Your task to perform on an android device: Open the calendar and show me this week's events Image 0: 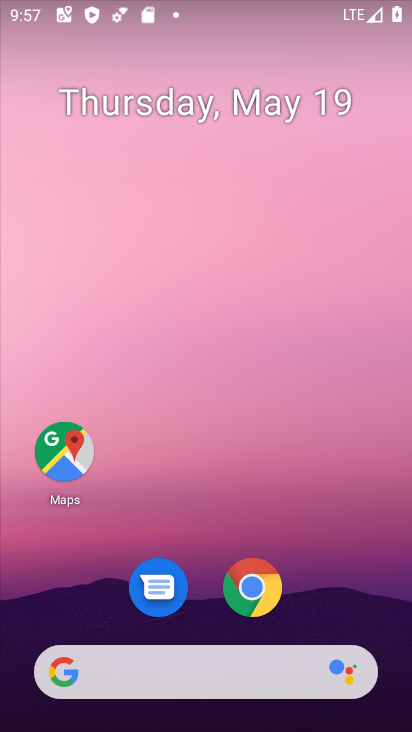
Step 0: click (176, 113)
Your task to perform on an android device: Open the calendar and show me this week's events Image 1: 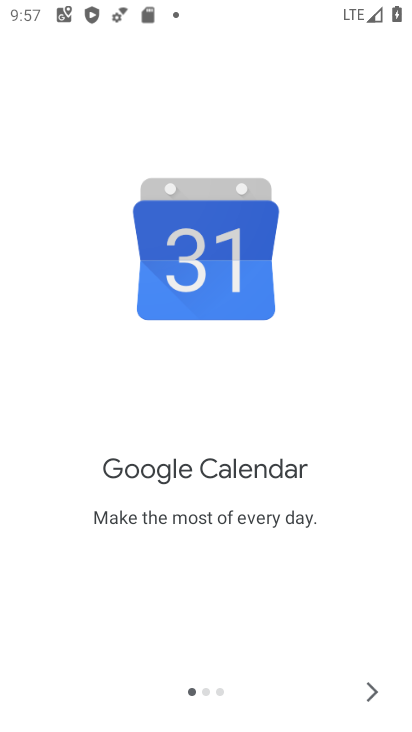
Step 1: click (362, 673)
Your task to perform on an android device: Open the calendar and show me this week's events Image 2: 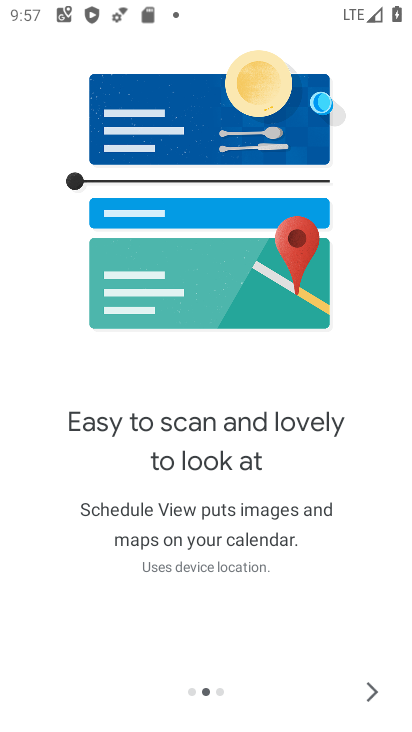
Step 2: click (362, 673)
Your task to perform on an android device: Open the calendar and show me this week's events Image 3: 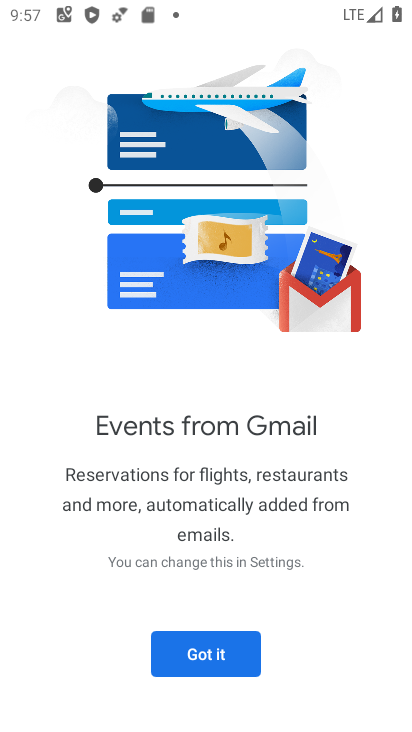
Step 3: click (226, 650)
Your task to perform on an android device: Open the calendar and show me this week's events Image 4: 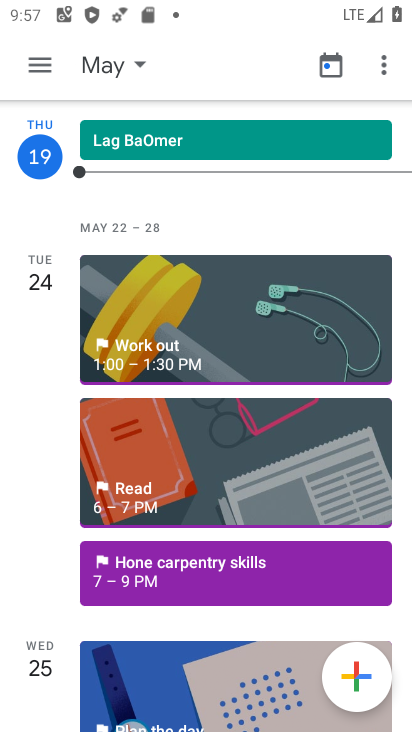
Step 4: click (97, 69)
Your task to perform on an android device: Open the calendar and show me this week's events Image 5: 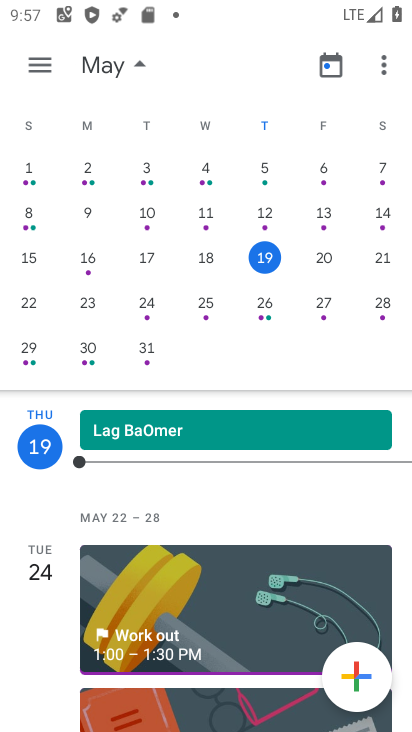
Step 5: click (48, 69)
Your task to perform on an android device: Open the calendar and show me this week's events Image 6: 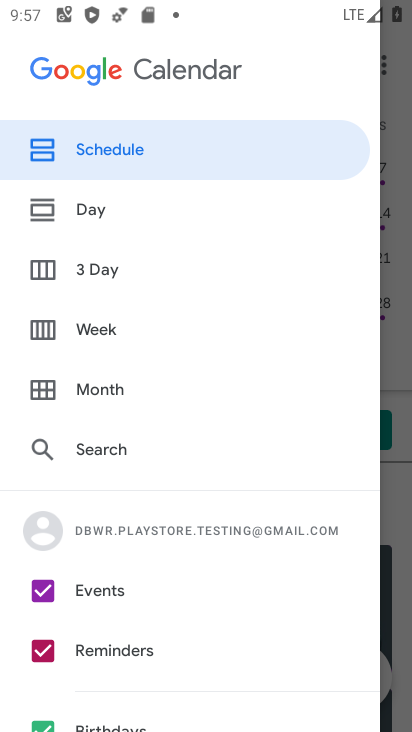
Step 6: click (42, 654)
Your task to perform on an android device: Open the calendar and show me this week's events Image 7: 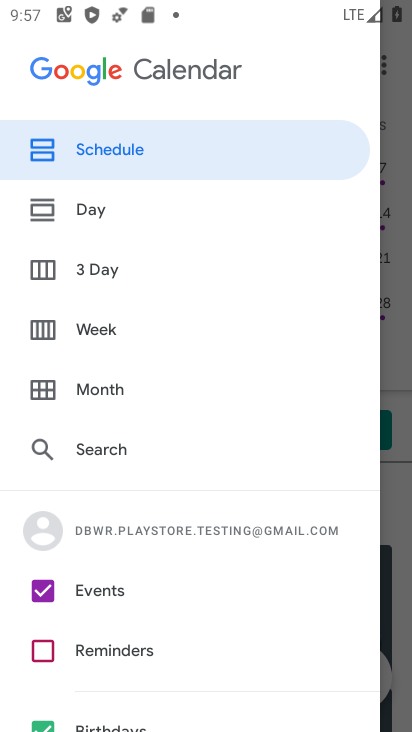
Step 7: click (38, 724)
Your task to perform on an android device: Open the calendar and show me this week's events Image 8: 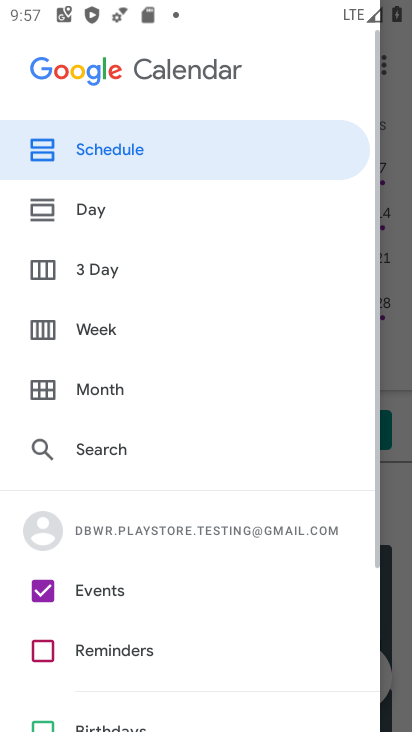
Step 8: drag from (86, 702) to (112, 511)
Your task to perform on an android device: Open the calendar and show me this week's events Image 9: 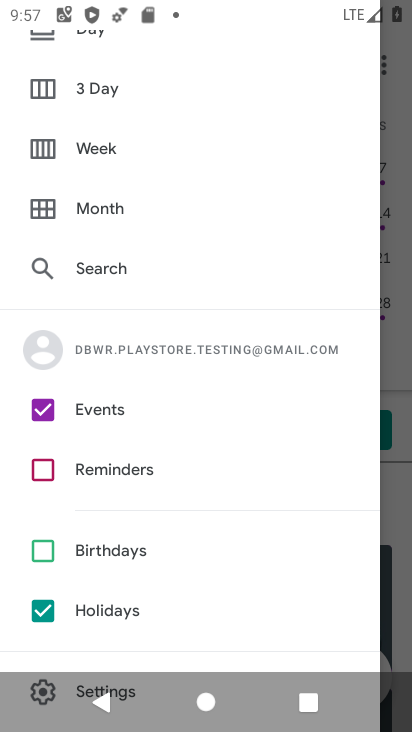
Step 9: click (43, 612)
Your task to perform on an android device: Open the calendar and show me this week's events Image 10: 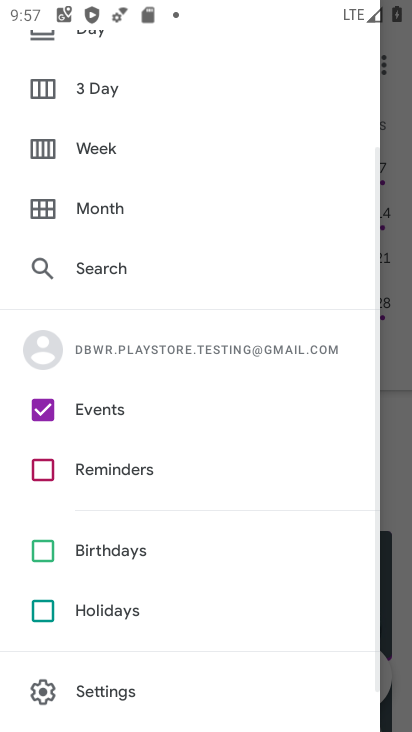
Step 10: click (134, 161)
Your task to perform on an android device: Open the calendar and show me this week's events Image 11: 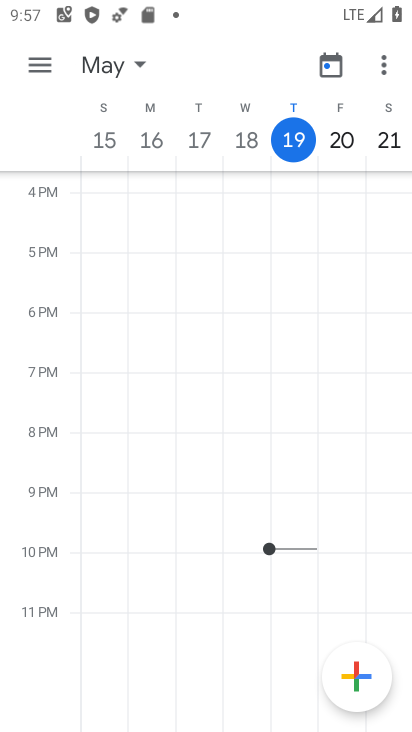
Step 11: task complete